Your task to perform on an android device: turn off javascript in the chrome app Image 0: 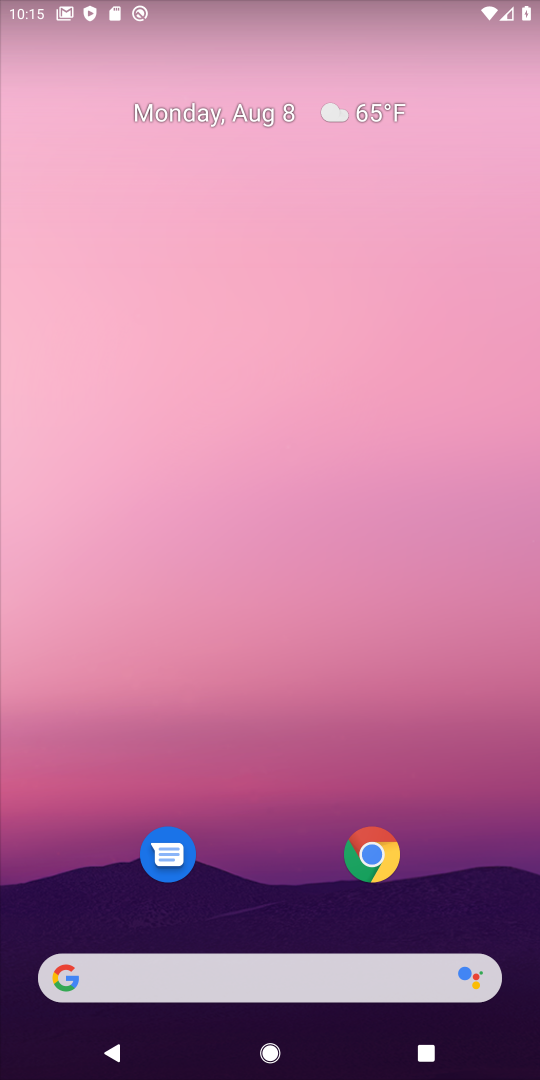
Step 0: click (375, 835)
Your task to perform on an android device: turn off javascript in the chrome app Image 1: 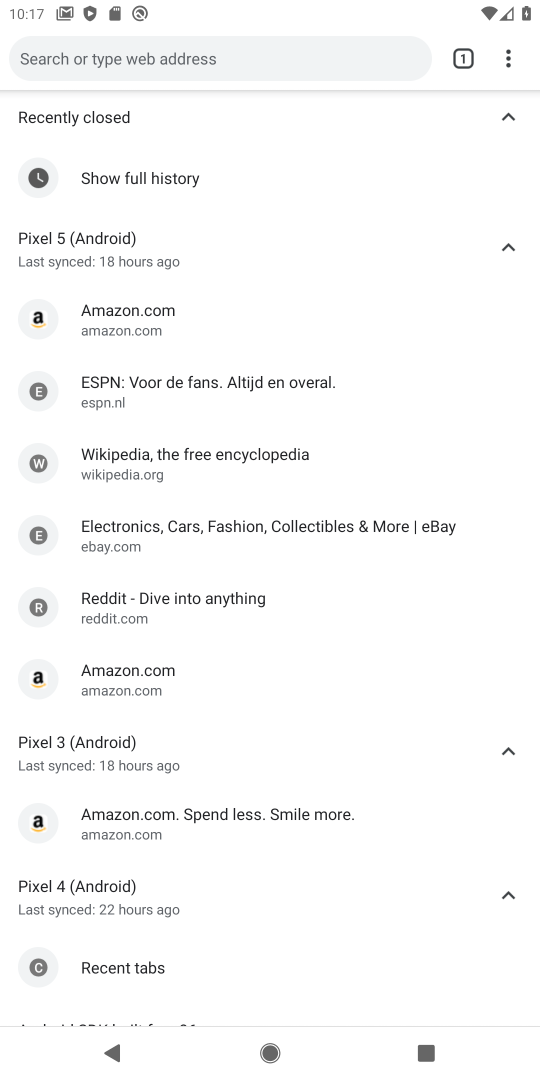
Step 1: click (523, 53)
Your task to perform on an android device: turn off javascript in the chrome app Image 2: 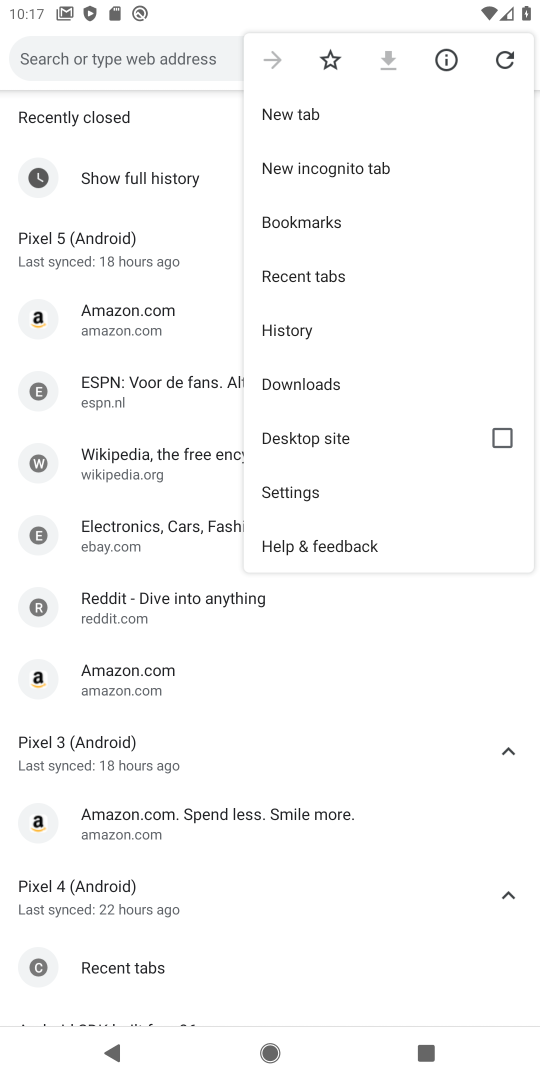
Step 2: click (362, 495)
Your task to perform on an android device: turn off javascript in the chrome app Image 3: 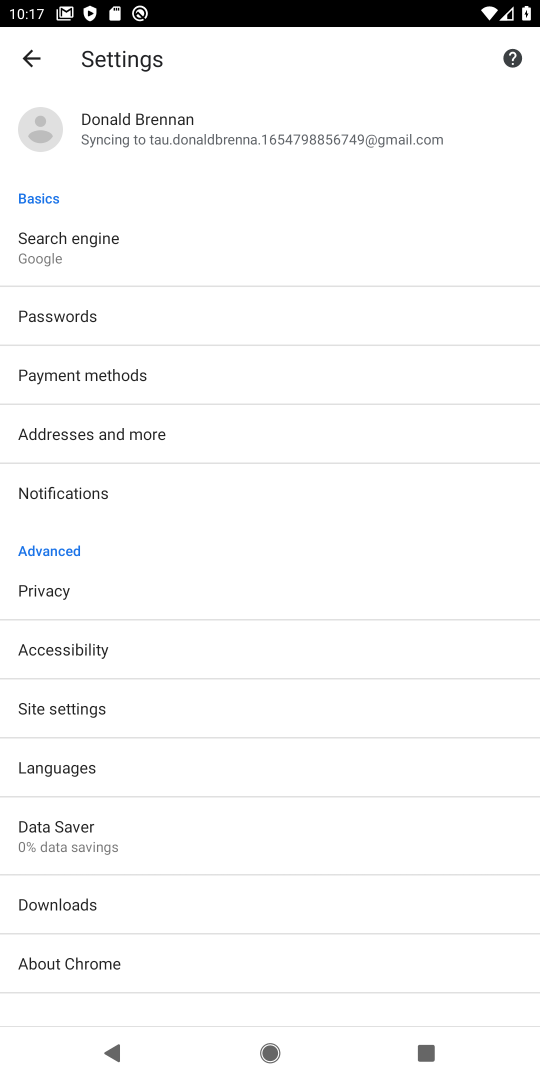
Step 3: click (125, 704)
Your task to perform on an android device: turn off javascript in the chrome app Image 4: 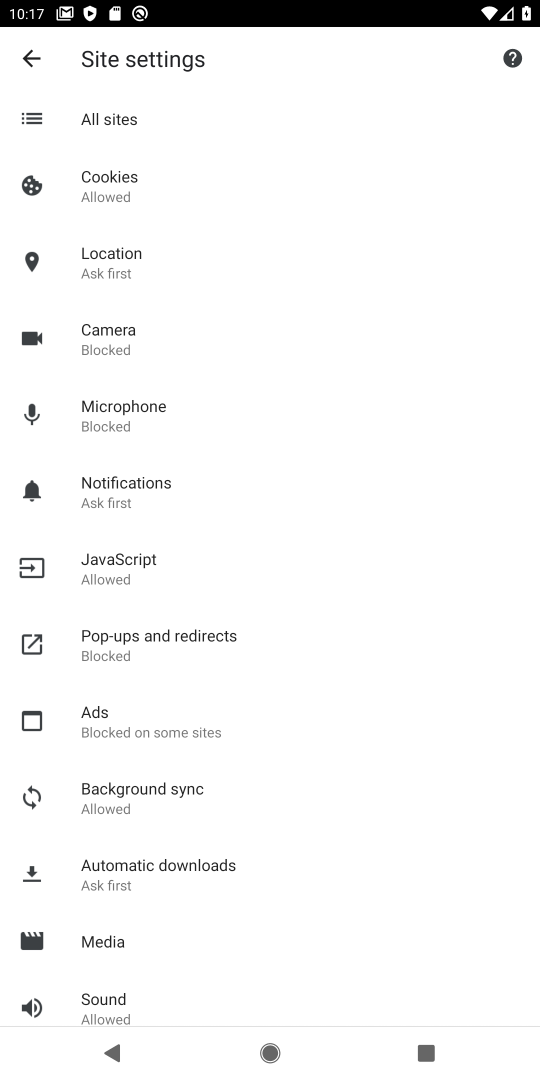
Step 4: click (157, 557)
Your task to perform on an android device: turn off javascript in the chrome app Image 5: 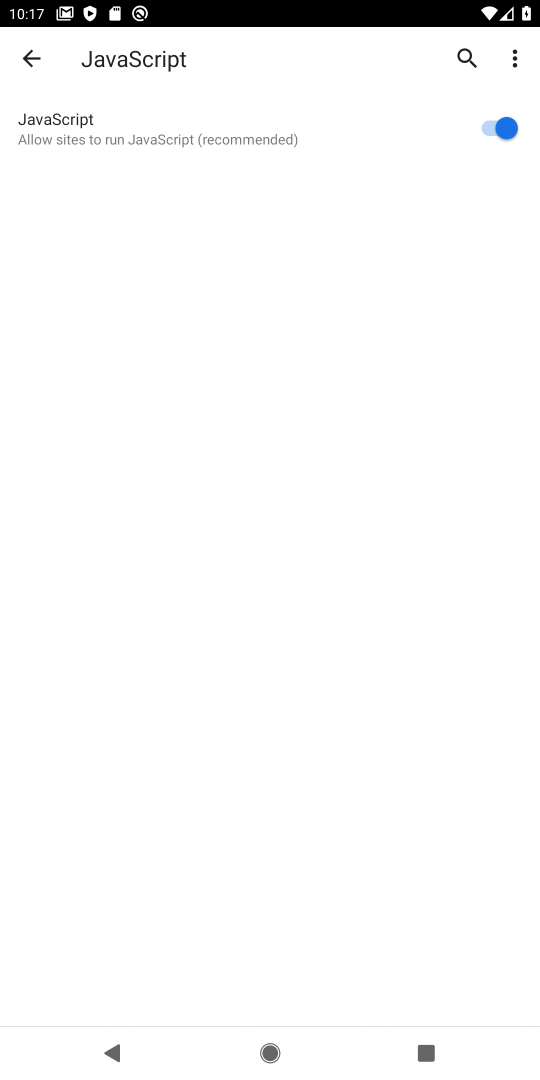
Step 5: click (487, 119)
Your task to perform on an android device: turn off javascript in the chrome app Image 6: 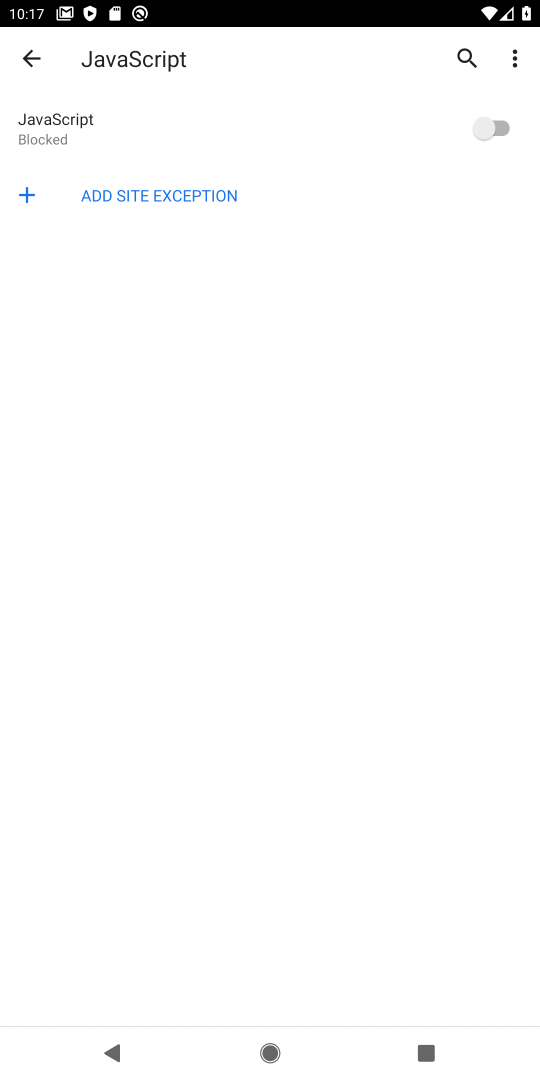
Step 6: task complete